Your task to perform on an android device: Go to eBay Image 0: 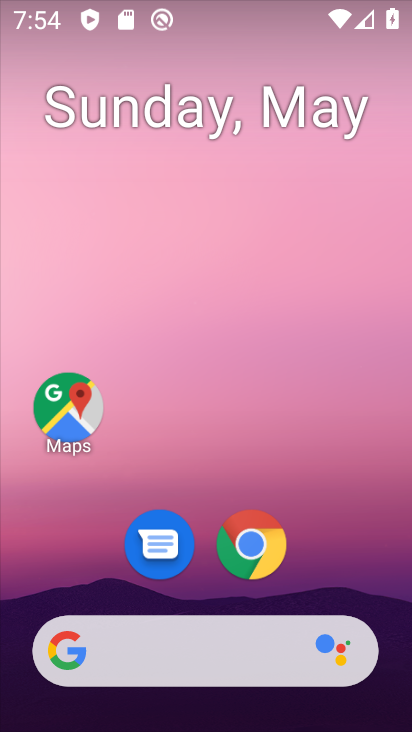
Step 0: drag from (362, 552) to (255, 31)
Your task to perform on an android device: Go to eBay Image 1: 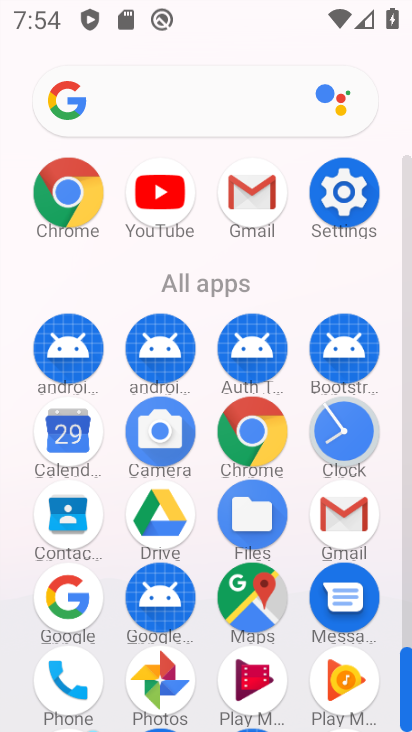
Step 1: drag from (14, 573) to (29, 203)
Your task to perform on an android device: Go to eBay Image 2: 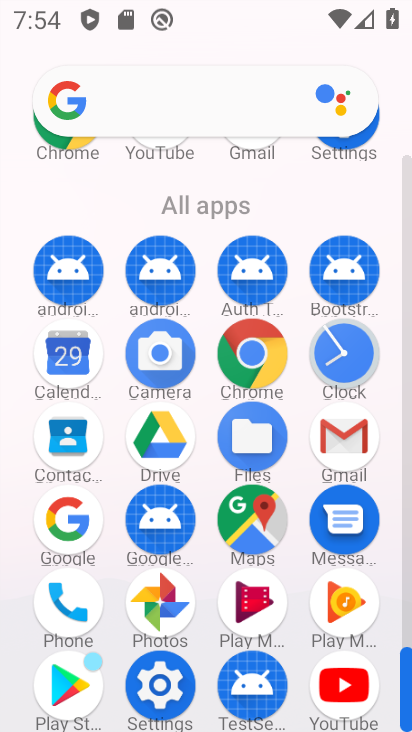
Step 2: click (252, 347)
Your task to perform on an android device: Go to eBay Image 3: 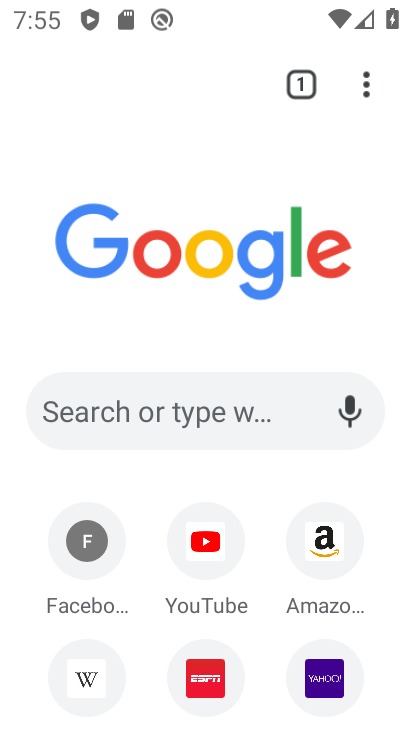
Step 3: click (140, 415)
Your task to perform on an android device: Go to eBay Image 4: 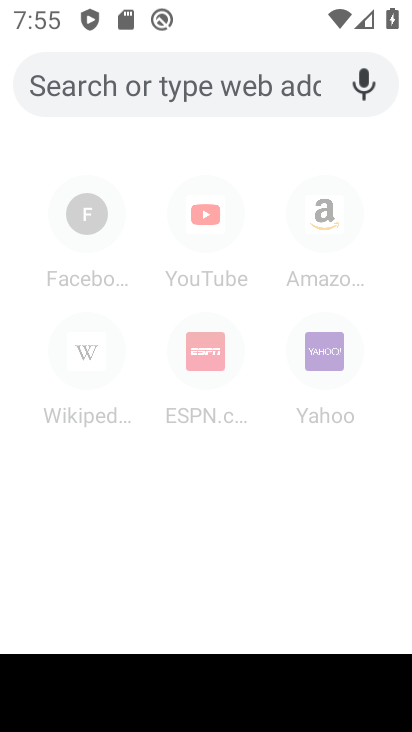
Step 4: type "eBay"
Your task to perform on an android device: Go to eBay Image 5: 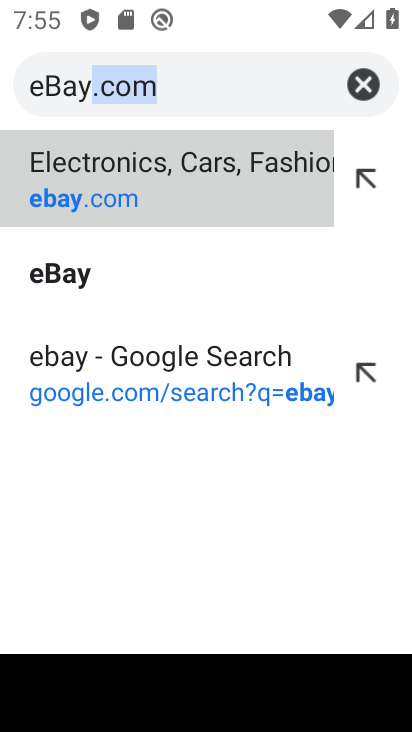
Step 5: type ""
Your task to perform on an android device: Go to eBay Image 6: 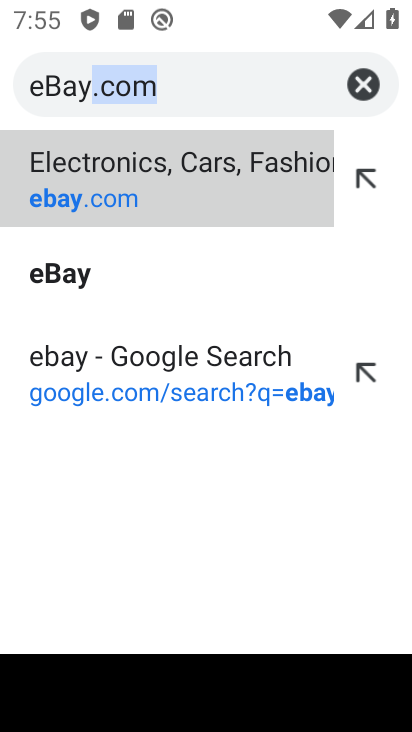
Step 6: click (154, 167)
Your task to perform on an android device: Go to eBay Image 7: 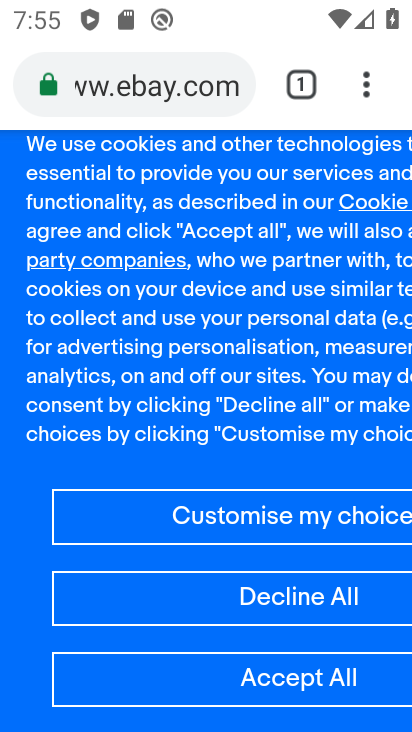
Step 7: task complete